Your task to perform on an android device: snooze an email in the gmail app Image 0: 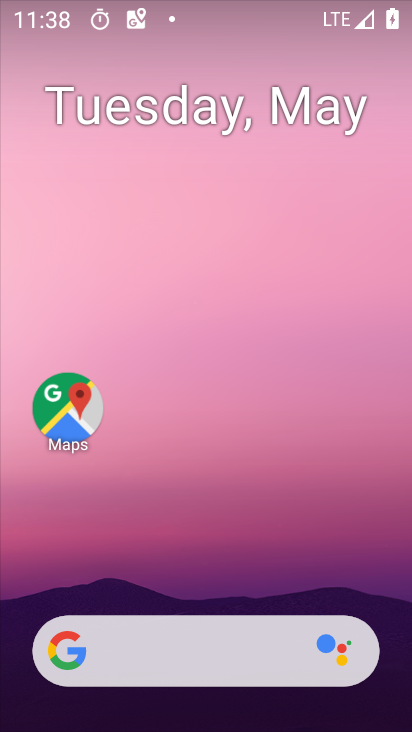
Step 0: drag from (197, 642) to (161, 545)
Your task to perform on an android device: snooze an email in the gmail app Image 1: 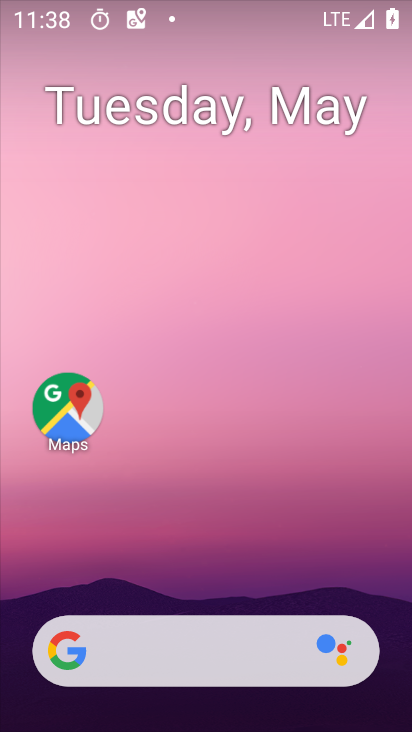
Step 1: drag from (170, 642) to (181, 254)
Your task to perform on an android device: snooze an email in the gmail app Image 2: 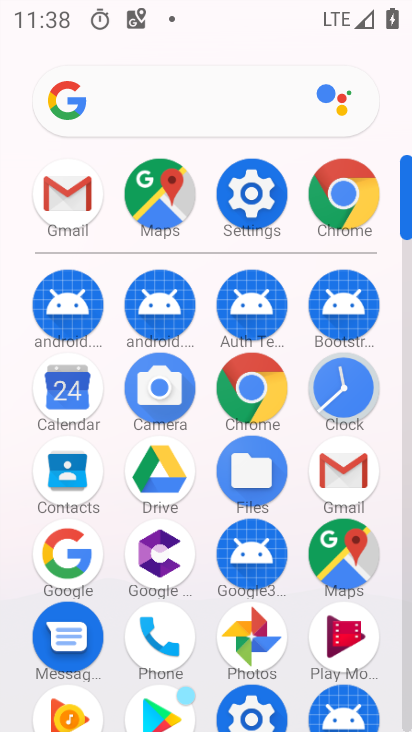
Step 2: click (49, 199)
Your task to perform on an android device: snooze an email in the gmail app Image 3: 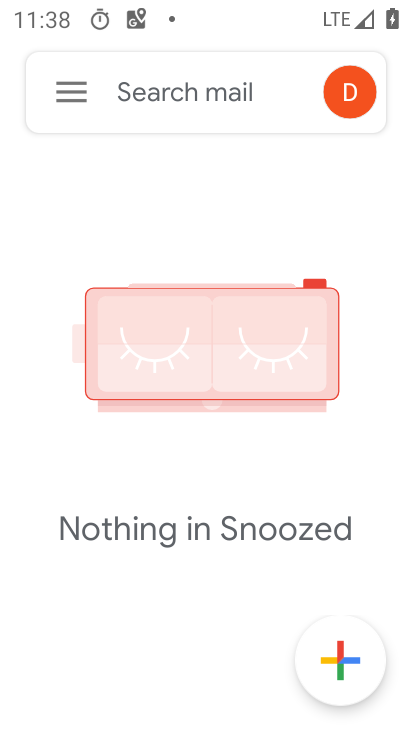
Step 3: click (81, 90)
Your task to perform on an android device: snooze an email in the gmail app Image 4: 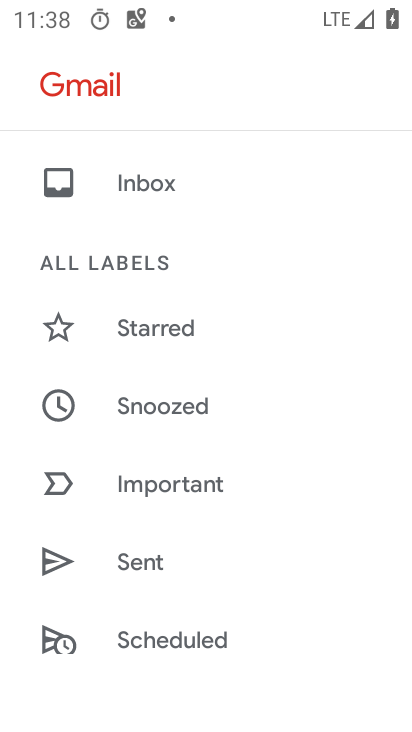
Step 4: drag from (205, 509) to (210, 266)
Your task to perform on an android device: snooze an email in the gmail app Image 5: 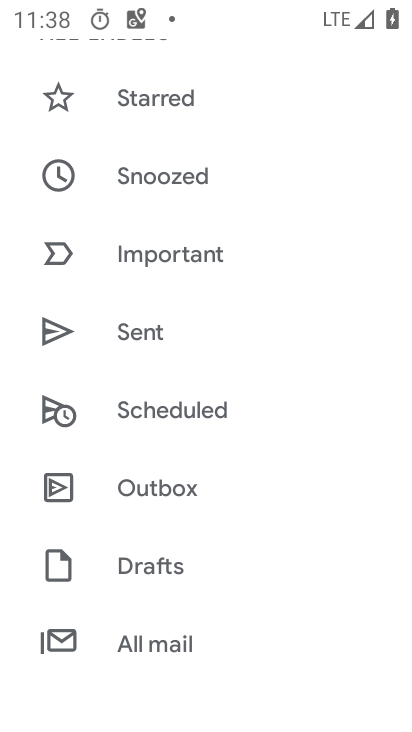
Step 5: click (151, 645)
Your task to perform on an android device: snooze an email in the gmail app Image 6: 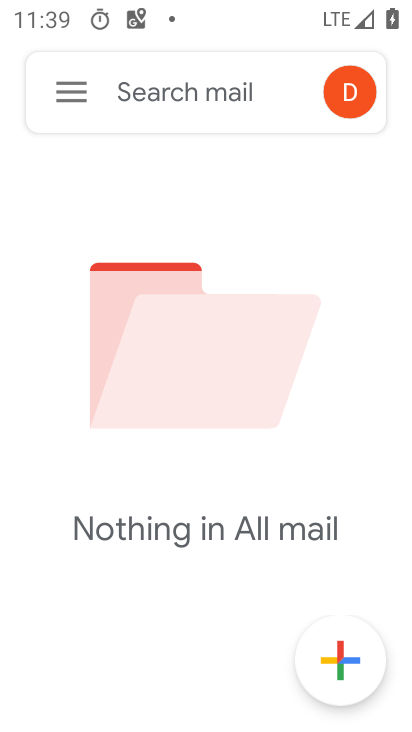
Step 6: task complete